Your task to perform on an android device: clear history in the chrome app Image 0: 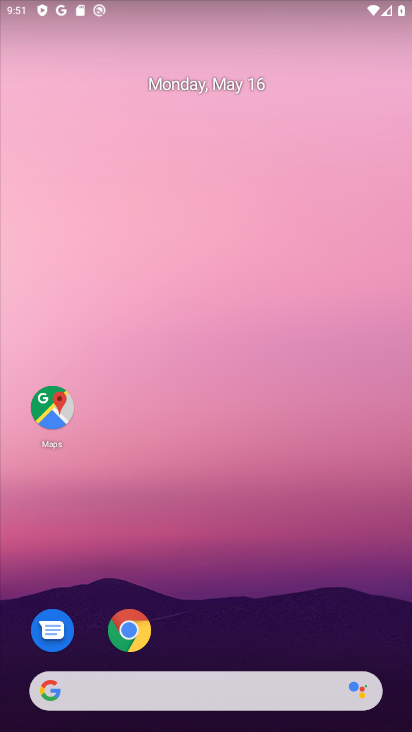
Step 0: drag from (225, 641) to (290, 158)
Your task to perform on an android device: clear history in the chrome app Image 1: 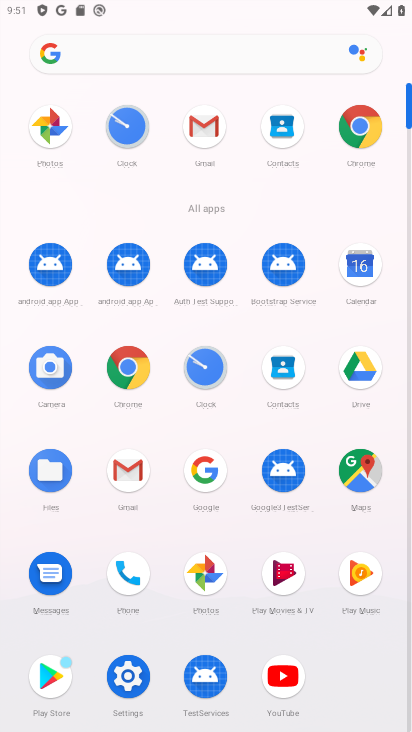
Step 1: click (367, 137)
Your task to perform on an android device: clear history in the chrome app Image 2: 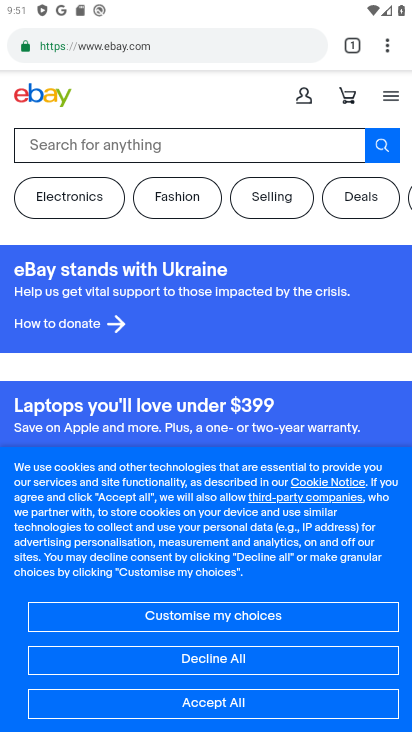
Step 2: click (392, 53)
Your task to perform on an android device: clear history in the chrome app Image 3: 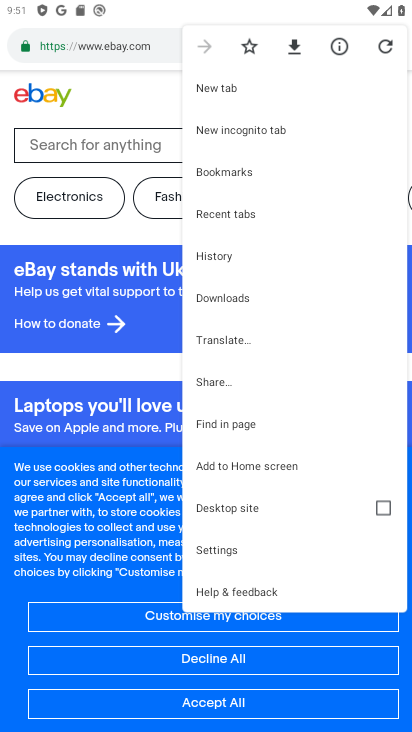
Step 3: click (214, 258)
Your task to perform on an android device: clear history in the chrome app Image 4: 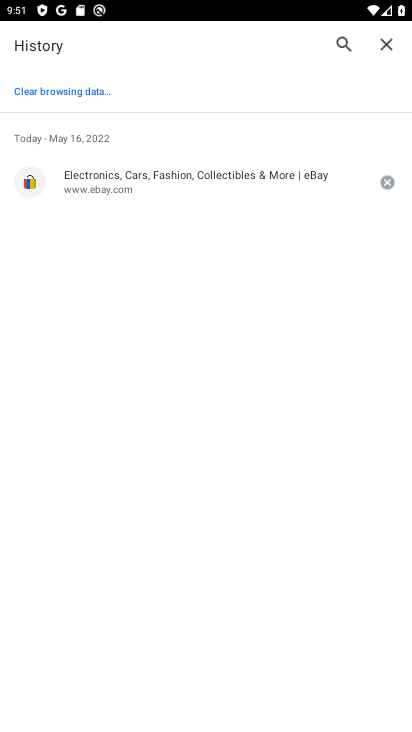
Step 4: click (59, 91)
Your task to perform on an android device: clear history in the chrome app Image 5: 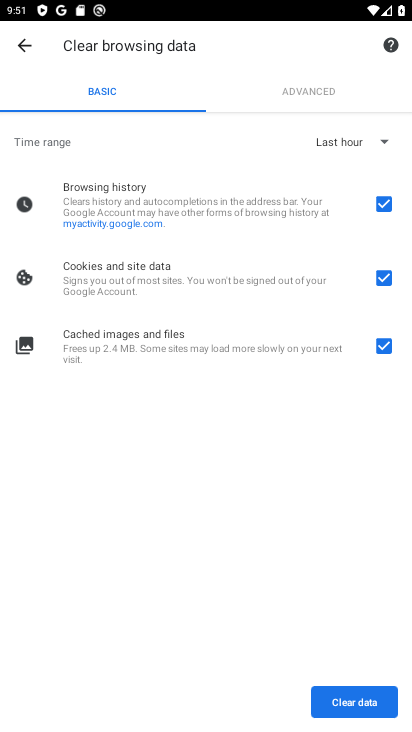
Step 5: click (358, 705)
Your task to perform on an android device: clear history in the chrome app Image 6: 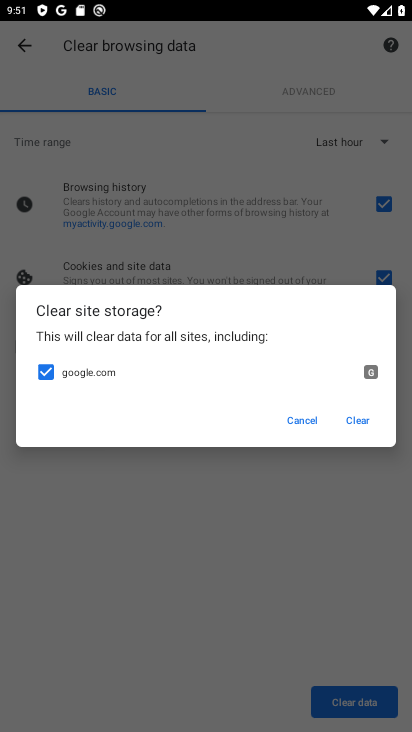
Step 6: click (368, 426)
Your task to perform on an android device: clear history in the chrome app Image 7: 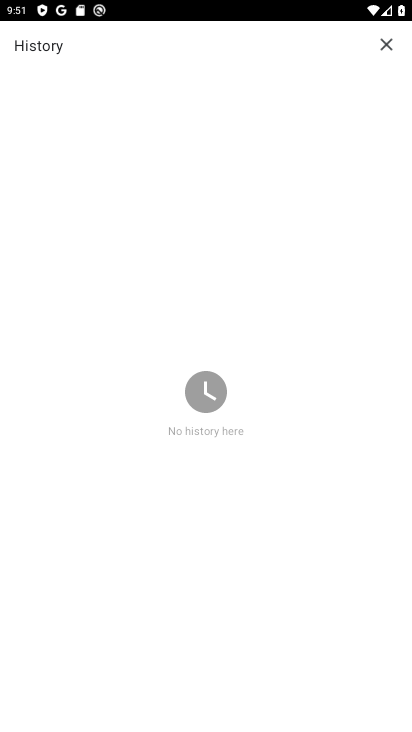
Step 7: task complete